Your task to perform on an android device: turn on bluetooth scan Image 0: 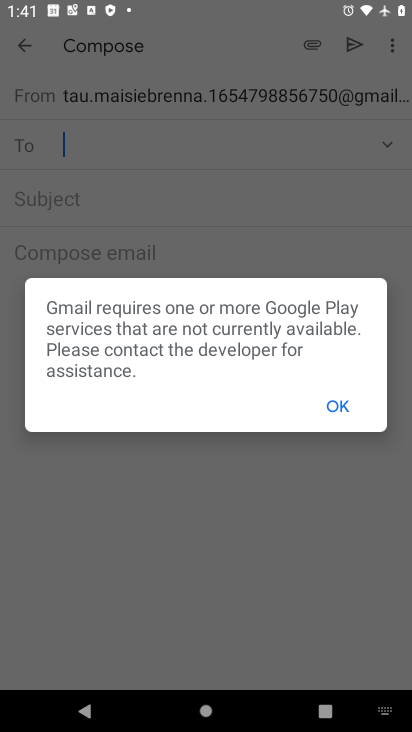
Step 0: press home button
Your task to perform on an android device: turn on bluetooth scan Image 1: 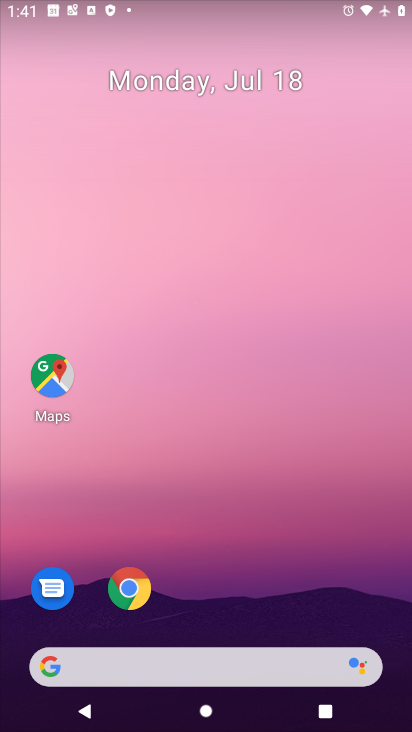
Step 1: drag from (207, 646) to (290, 152)
Your task to perform on an android device: turn on bluetooth scan Image 2: 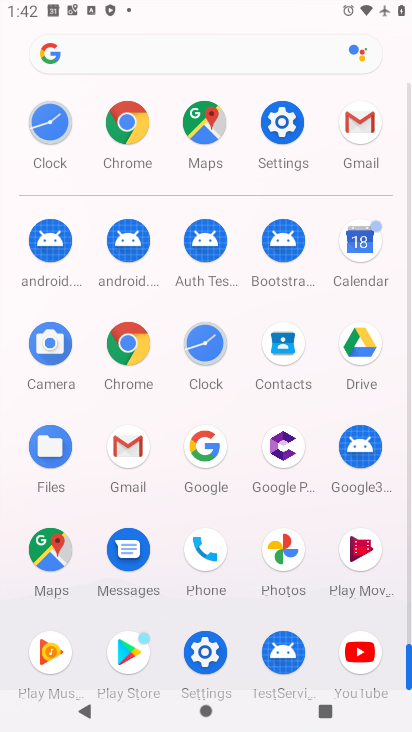
Step 2: click (300, 148)
Your task to perform on an android device: turn on bluetooth scan Image 3: 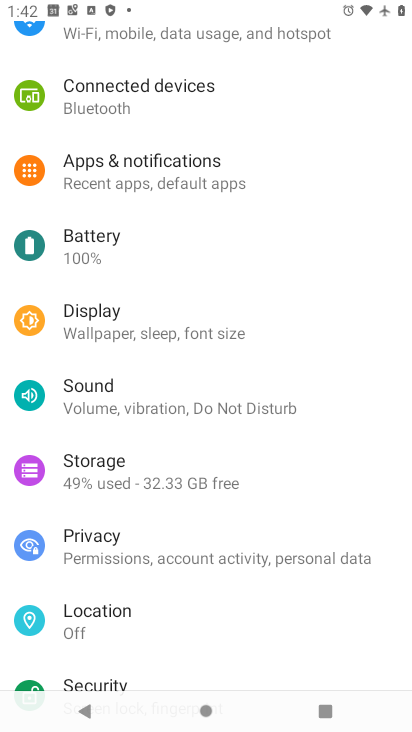
Step 3: click (221, 104)
Your task to perform on an android device: turn on bluetooth scan Image 4: 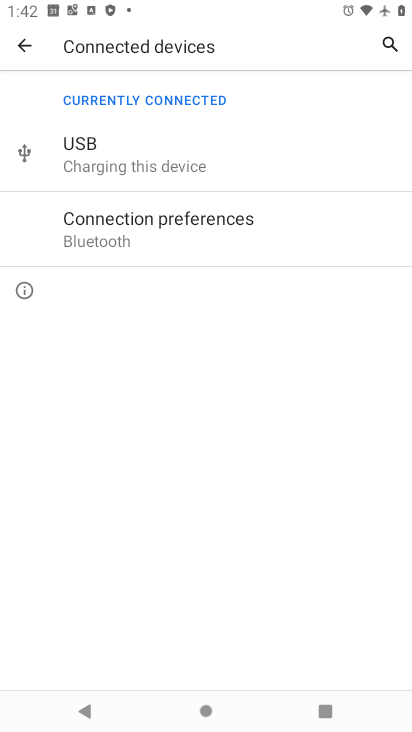
Step 4: click (209, 236)
Your task to perform on an android device: turn on bluetooth scan Image 5: 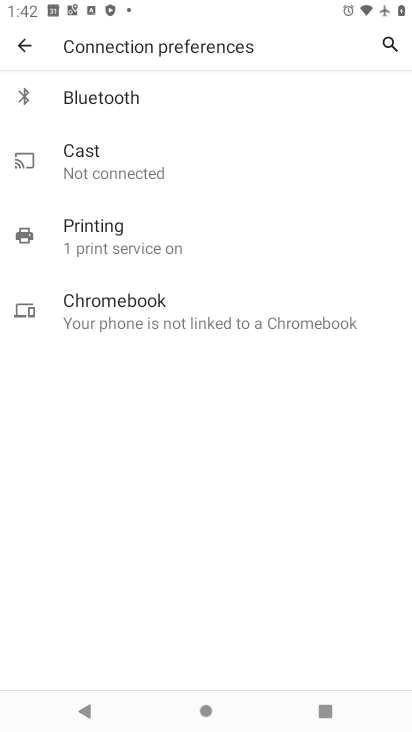
Step 5: click (139, 111)
Your task to perform on an android device: turn on bluetooth scan Image 6: 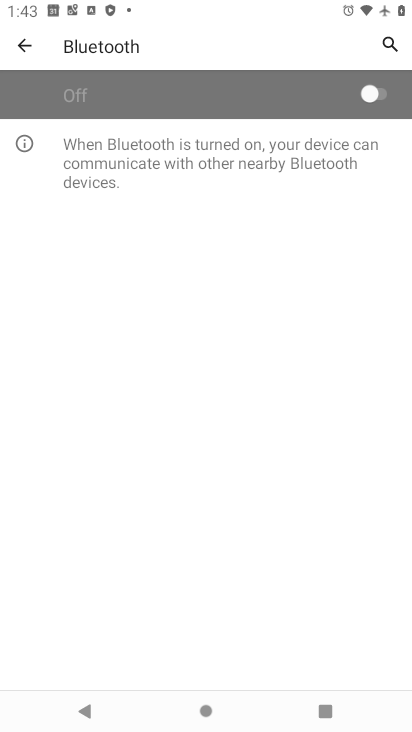
Step 6: task complete